Your task to perform on an android device: Do I have any events this weekend? Image 0: 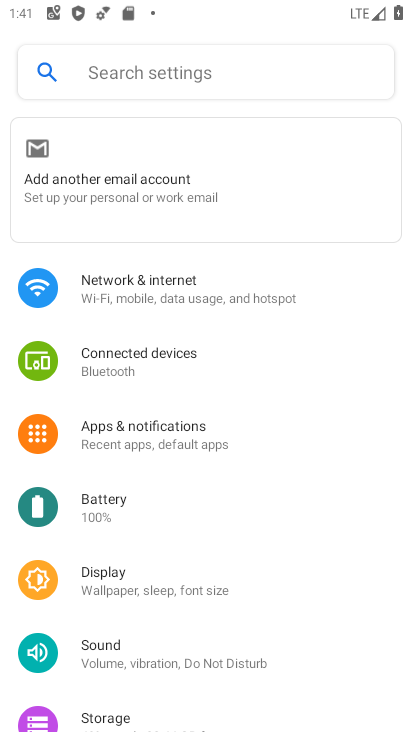
Step 0: press home button
Your task to perform on an android device: Do I have any events this weekend? Image 1: 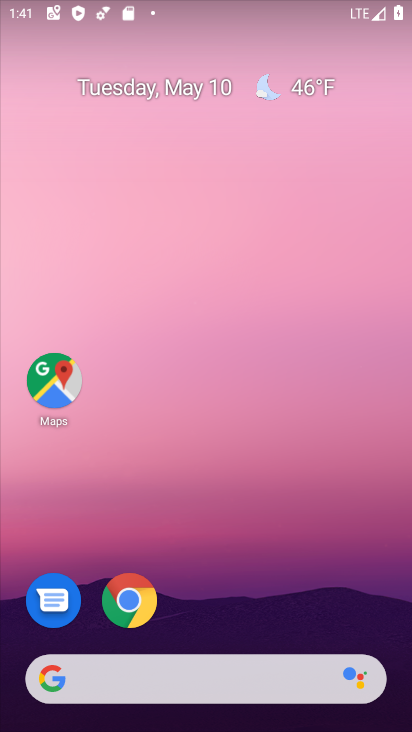
Step 1: drag from (142, 686) to (221, 195)
Your task to perform on an android device: Do I have any events this weekend? Image 2: 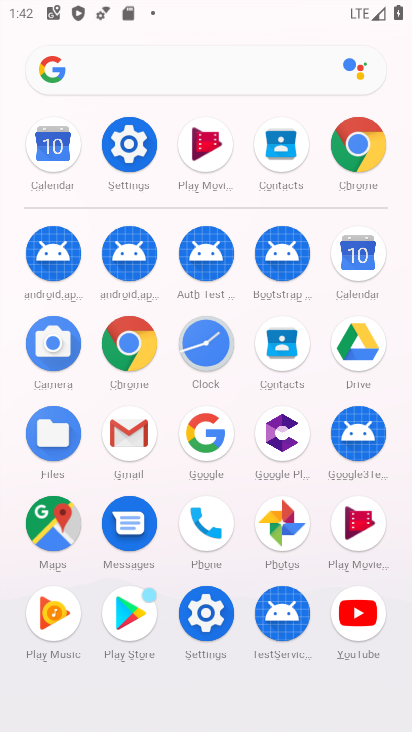
Step 2: click (351, 265)
Your task to perform on an android device: Do I have any events this weekend? Image 3: 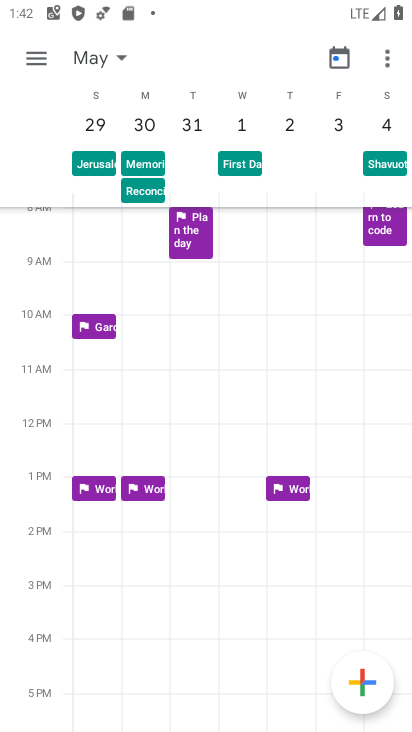
Step 3: click (100, 61)
Your task to perform on an android device: Do I have any events this weekend? Image 4: 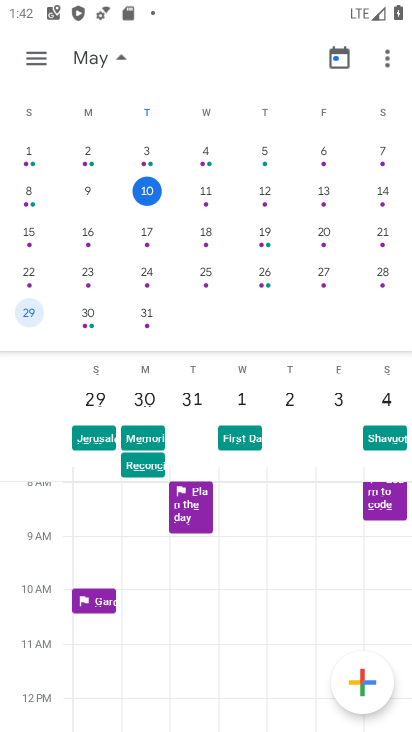
Step 4: click (386, 197)
Your task to perform on an android device: Do I have any events this weekend? Image 5: 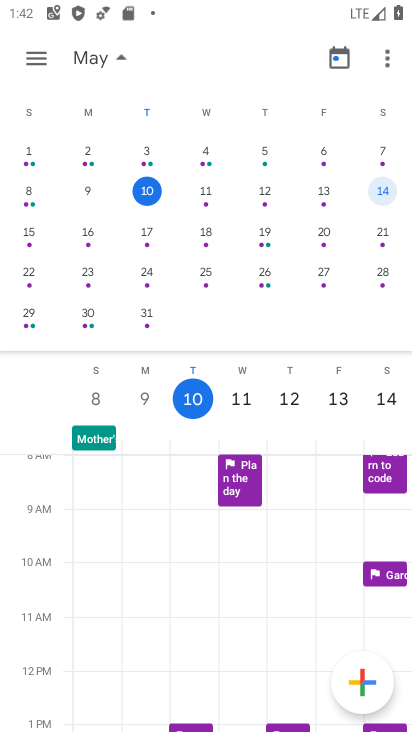
Step 5: click (32, 63)
Your task to perform on an android device: Do I have any events this weekend? Image 6: 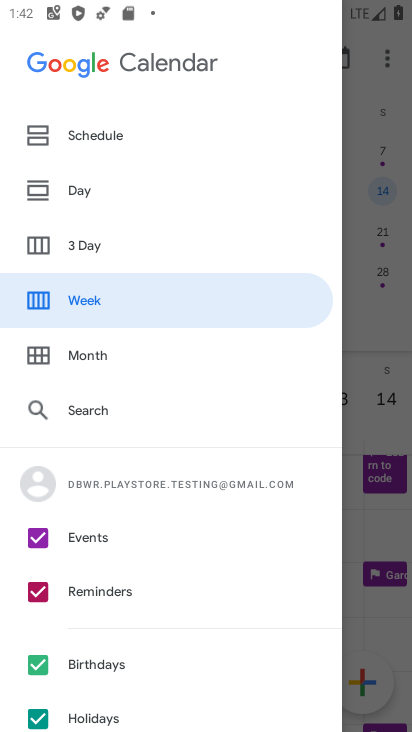
Step 6: click (76, 189)
Your task to perform on an android device: Do I have any events this weekend? Image 7: 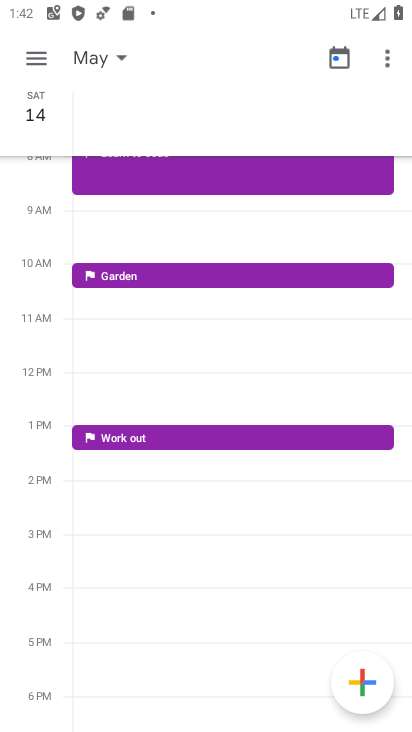
Step 7: click (44, 64)
Your task to perform on an android device: Do I have any events this weekend? Image 8: 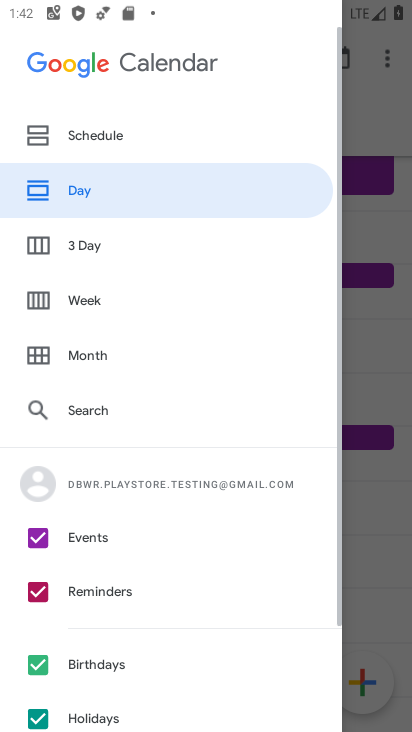
Step 8: click (104, 136)
Your task to perform on an android device: Do I have any events this weekend? Image 9: 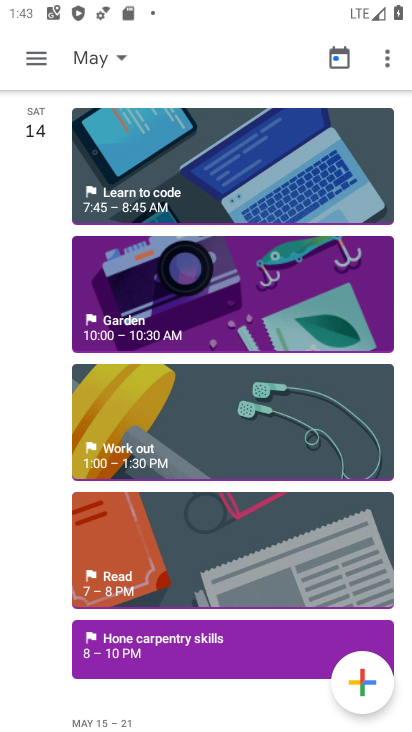
Step 9: click (234, 311)
Your task to perform on an android device: Do I have any events this weekend? Image 10: 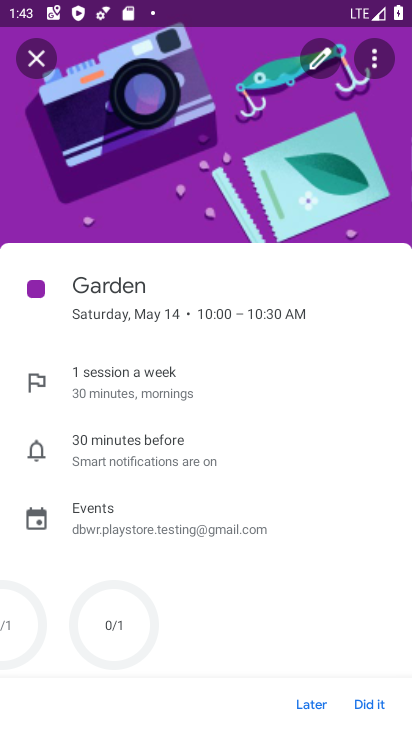
Step 10: task complete